Your task to perform on an android device: install app "Yahoo Mail" Image 0: 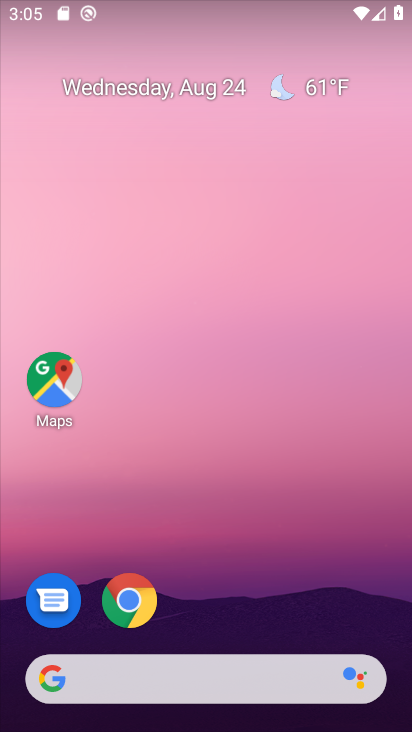
Step 0: drag from (210, 659) to (347, 85)
Your task to perform on an android device: install app "Yahoo Mail" Image 1: 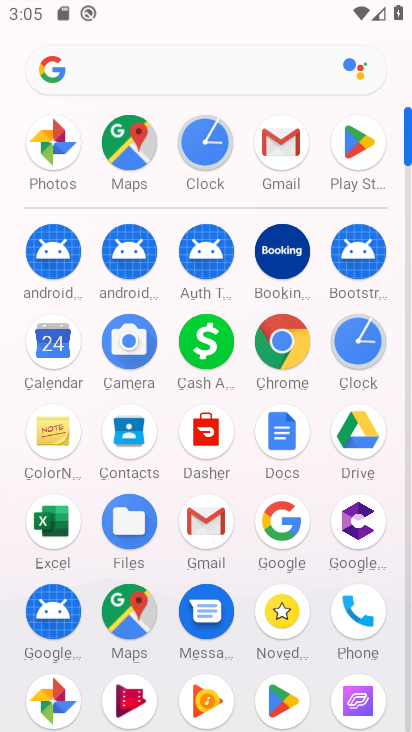
Step 1: click (360, 156)
Your task to perform on an android device: install app "Yahoo Mail" Image 2: 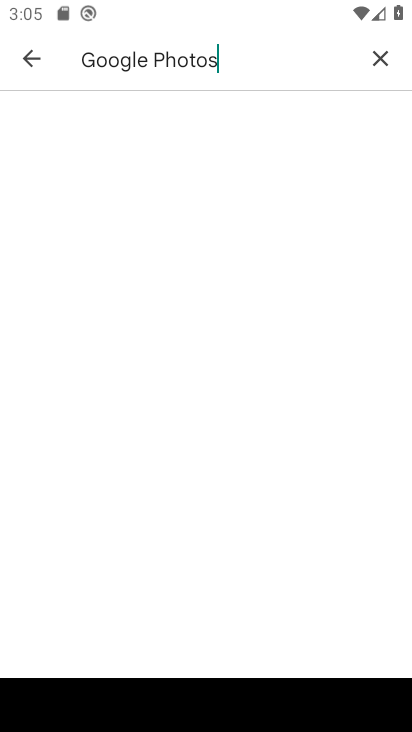
Step 2: click (376, 57)
Your task to perform on an android device: install app "Yahoo Mail" Image 3: 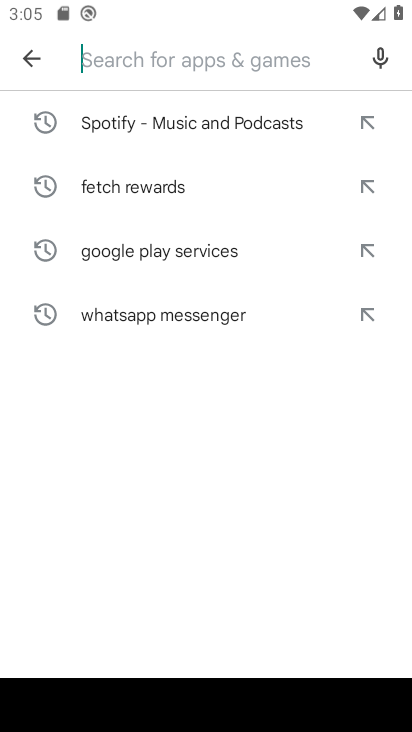
Step 3: click (159, 41)
Your task to perform on an android device: install app "Yahoo Mail" Image 4: 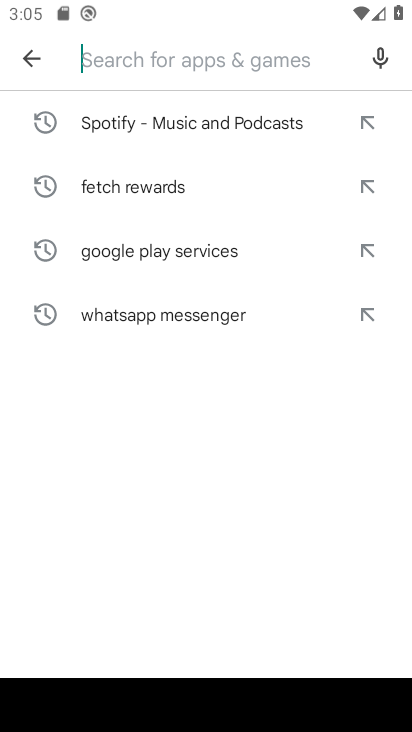
Step 4: type "Yahoo Mail"
Your task to perform on an android device: install app "Yahoo Mail" Image 5: 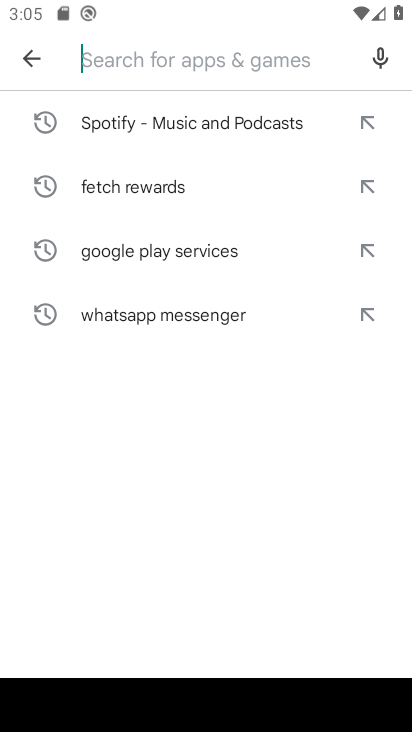
Step 5: click (146, 502)
Your task to perform on an android device: install app "Yahoo Mail" Image 6: 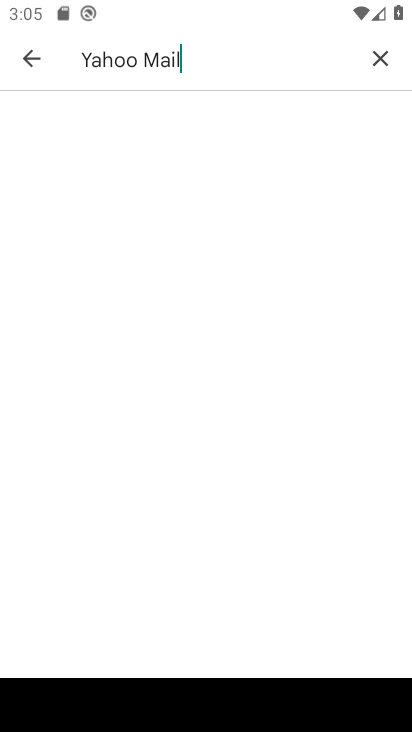
Step 6: task complete